Your task to perform on an android device: Open Google Maps Image 0: 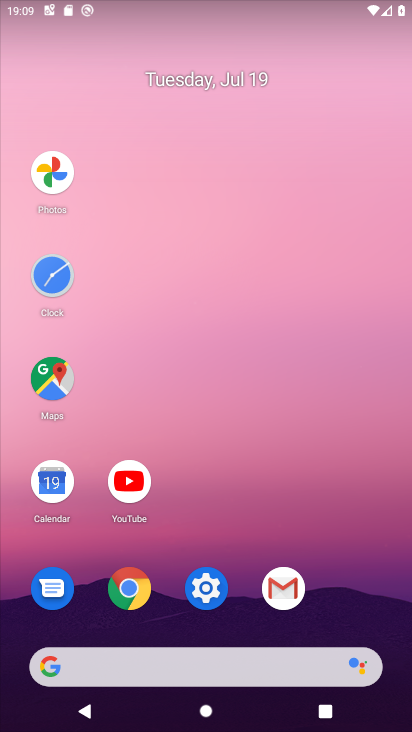
Step 0: click (49, 371)
Your task to perform on an android device: Open Google Maps Image 1: 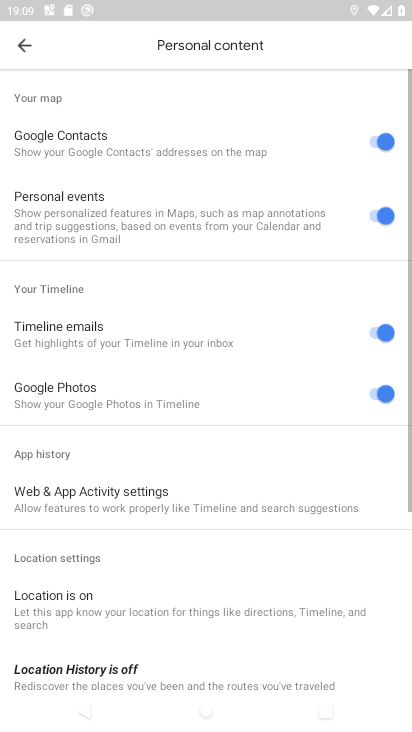
Step 1: click (23, 38)
Your task to perform on an android device: Open Google Maps Image 2: 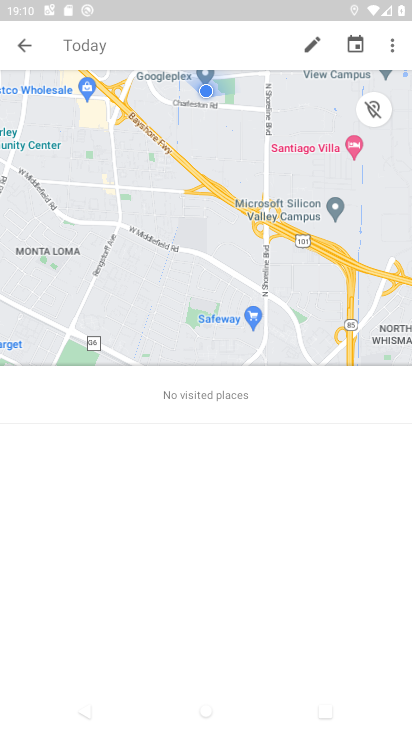
Step 2: click (22, 49)
Your task to perform on an android device: Open Google Maps Image 3: 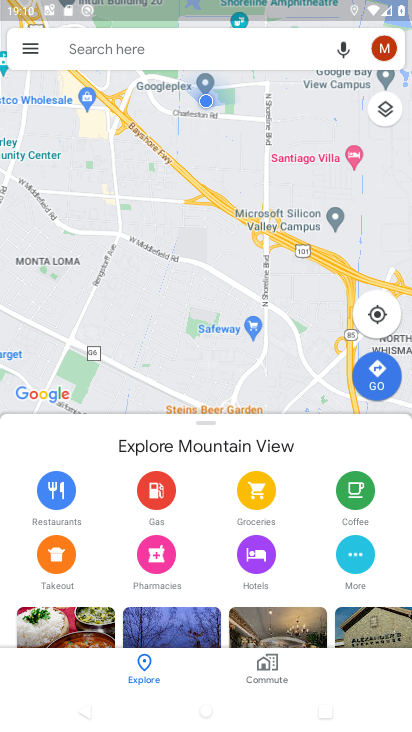
Step 3: task complete